Your task to perform on an android device: Open ESPN.com Image 0: 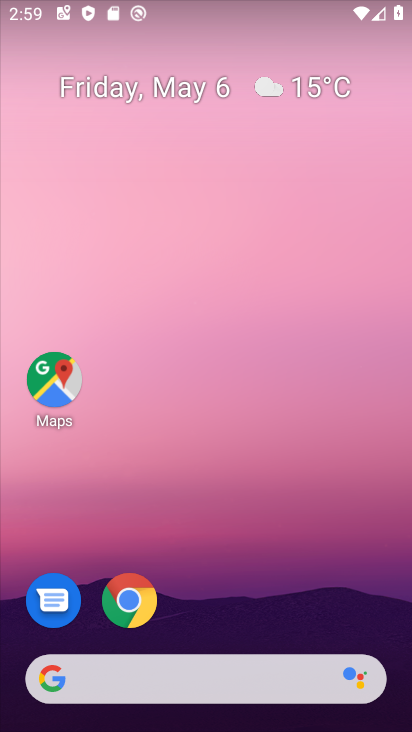
Step 0: drag from (275, 521) to (250, 7)
Your task to perform on an android device: Open ESPN.com Image 1: 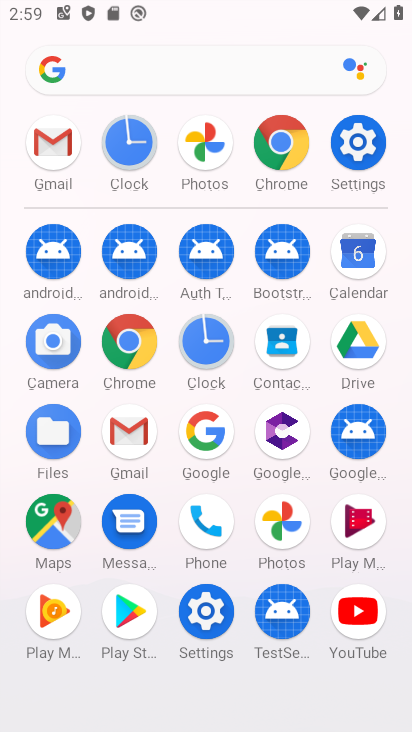
Step 1: drag from (5, 531) to (1, 221)
Your task to perform on an android device: Open ESPN.com Image 2: 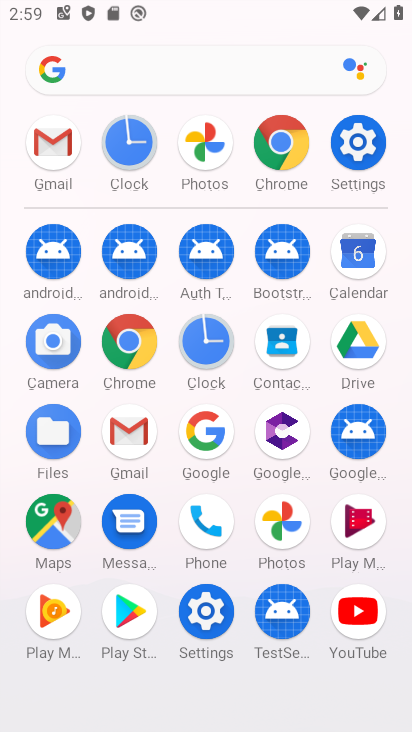
Step 2: click (132, 339)
Your task to perform on an android device: Open ESPN.com Image 3: 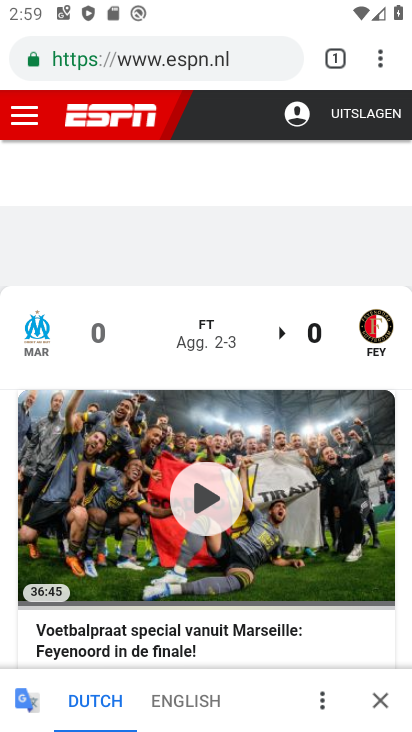
Step 3: task complete